Your task to perform on an android device: Where can I buy a nice beach blanket? Image 0: 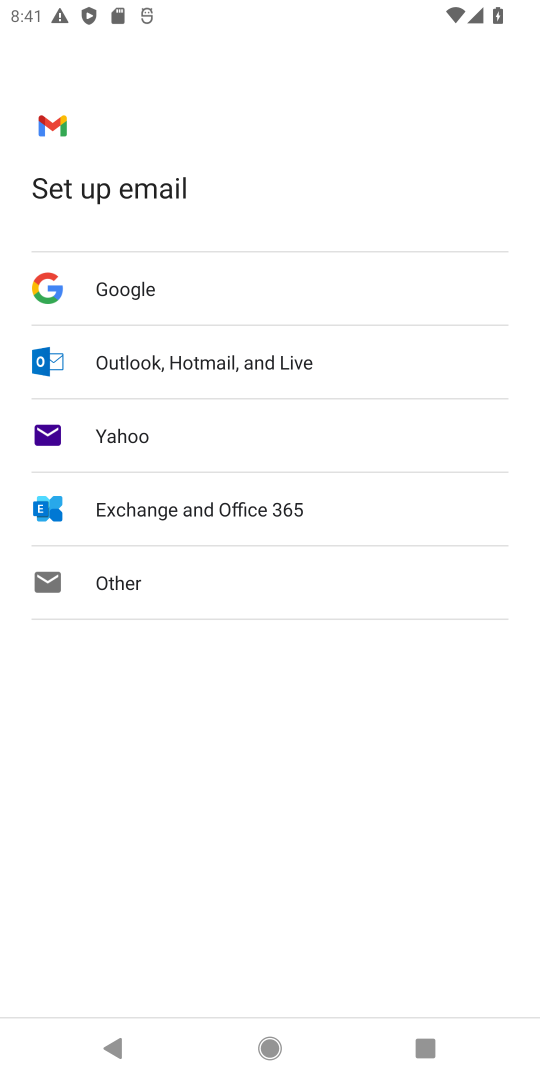
Step 0: press home button
Your task to perform on an android device: Where can I buy a nice beach blanket? Image 1: 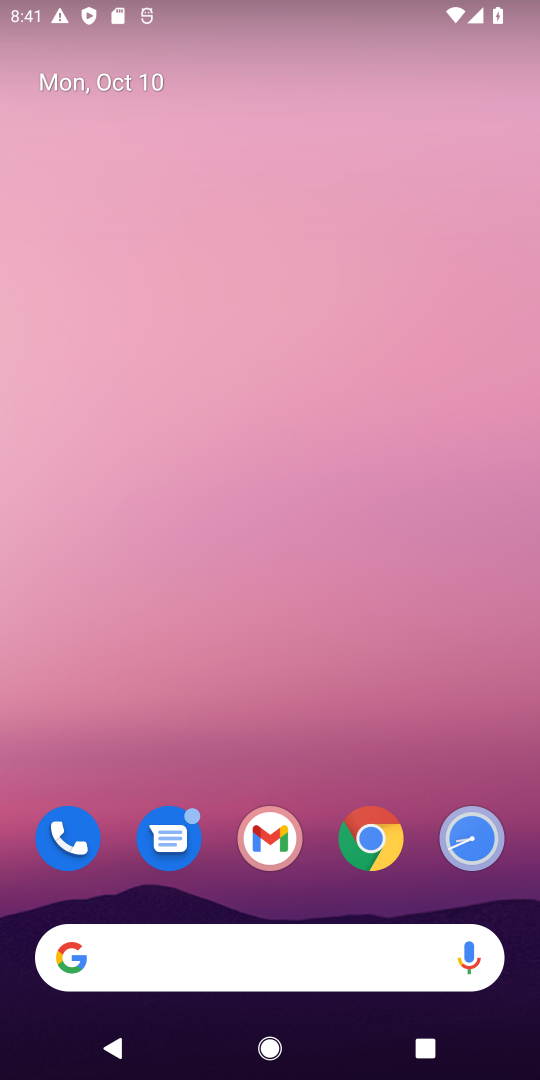
Step 1: drag from (340, 884) to (355, 46)
Your task to perform on an android device: Where can I buy a nice beach blanket? Image 2: 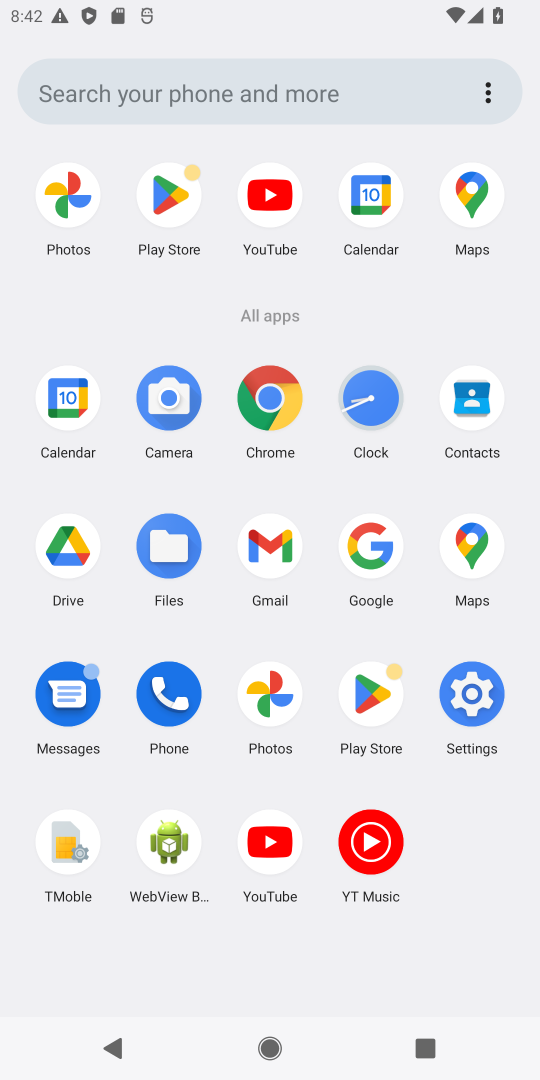
Step 2: click (270, 392)
Your task to perform on an android device: Where can I buy a nice beach blanket? Image 3: 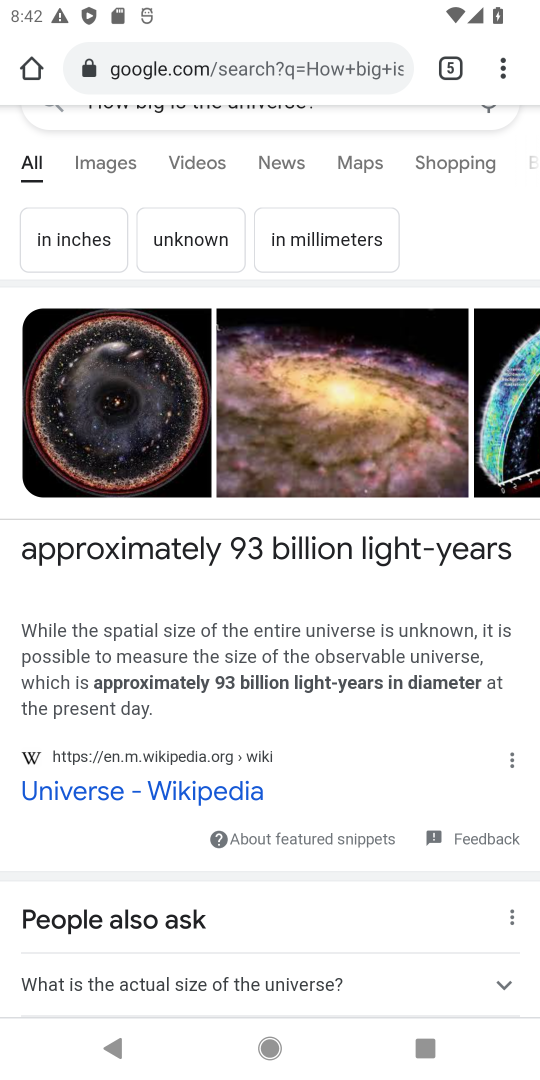
Step 3: drag from (281, 178) to (274, 694)
Your task to perform on an android device: Where can I buy a nice beach blanket? Image 4: 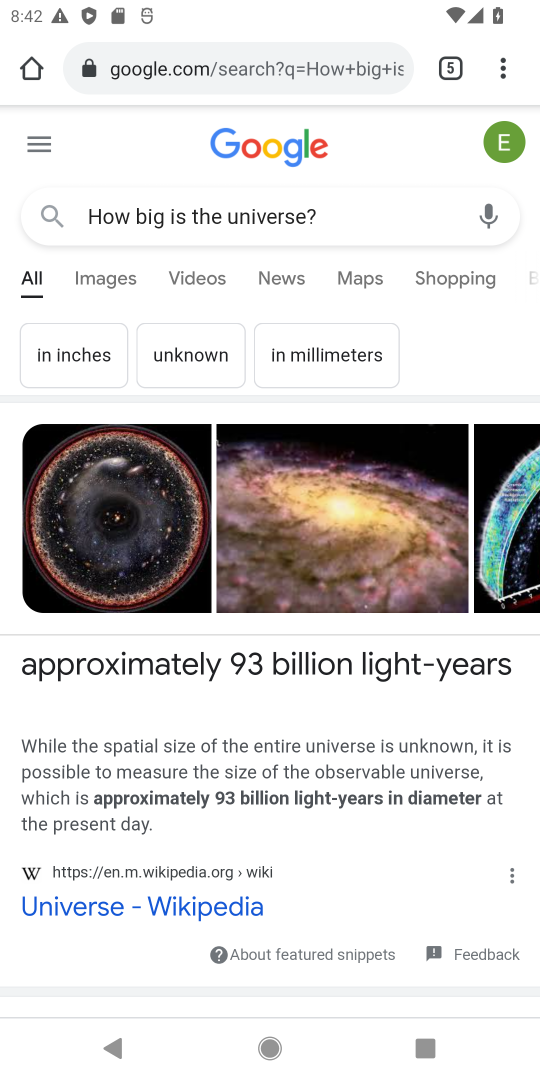
Step 4: click (351, 212)
Your task to perform on an android device: Where can I buy a nice beach blanket? Image 5: 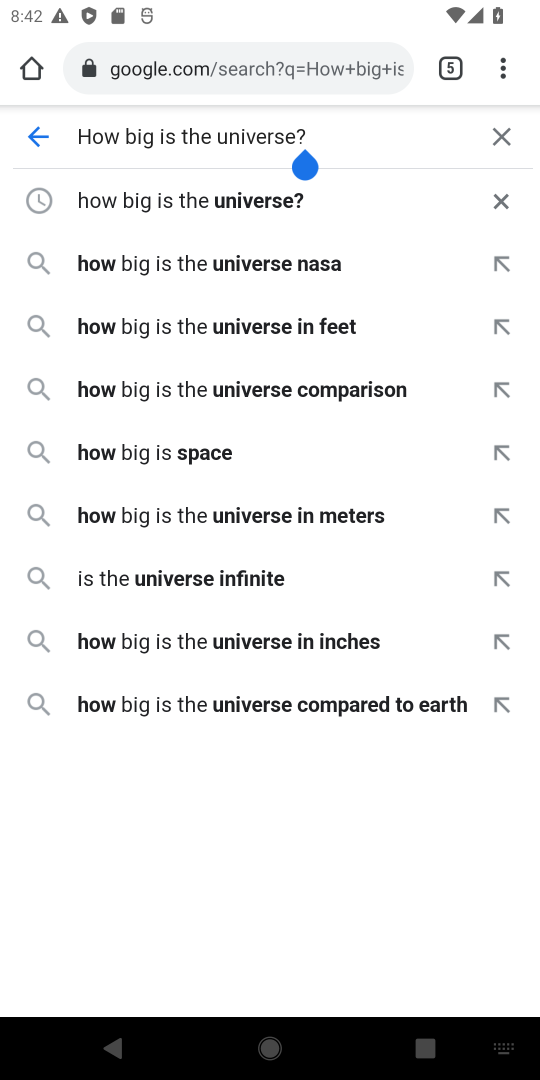
Step 5: click (510, 136)
Your task to perform on an android device: Where can I buy a nice beach blanket? Image 6: 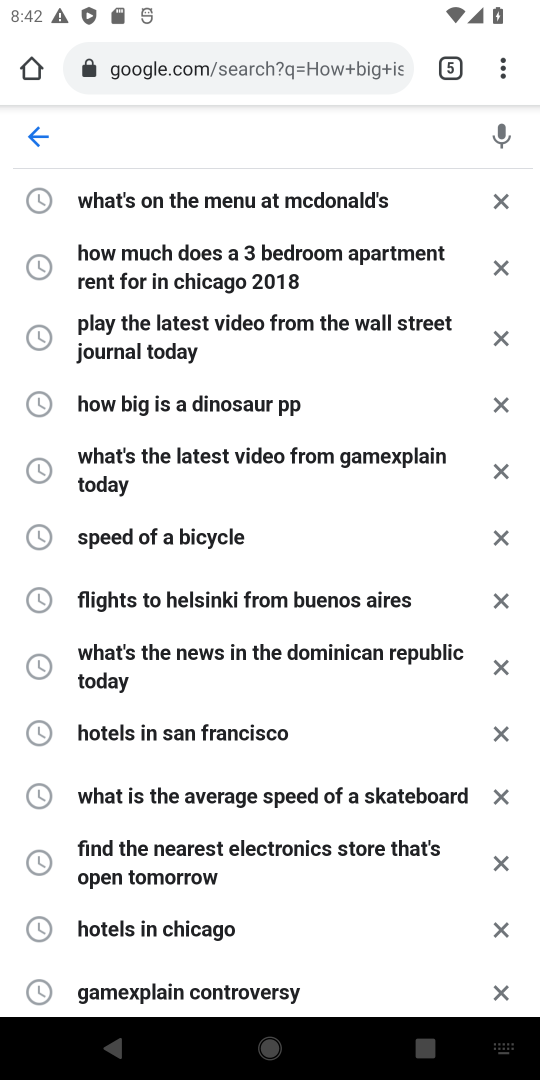
Step 6: type "Where can I buy a nice beach blanket?"
Your task to perform on an android device: Where can I buy a nice beach blanket? Image 7: 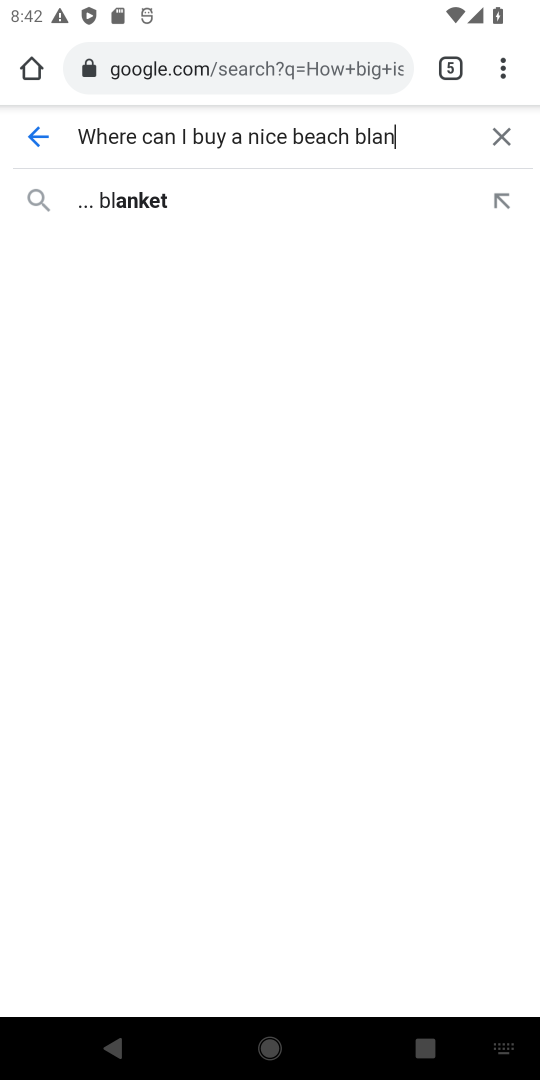
Step 7: type ""
Your task to perform on an android device: Where can I buy a nice beach blanket? Image 8: 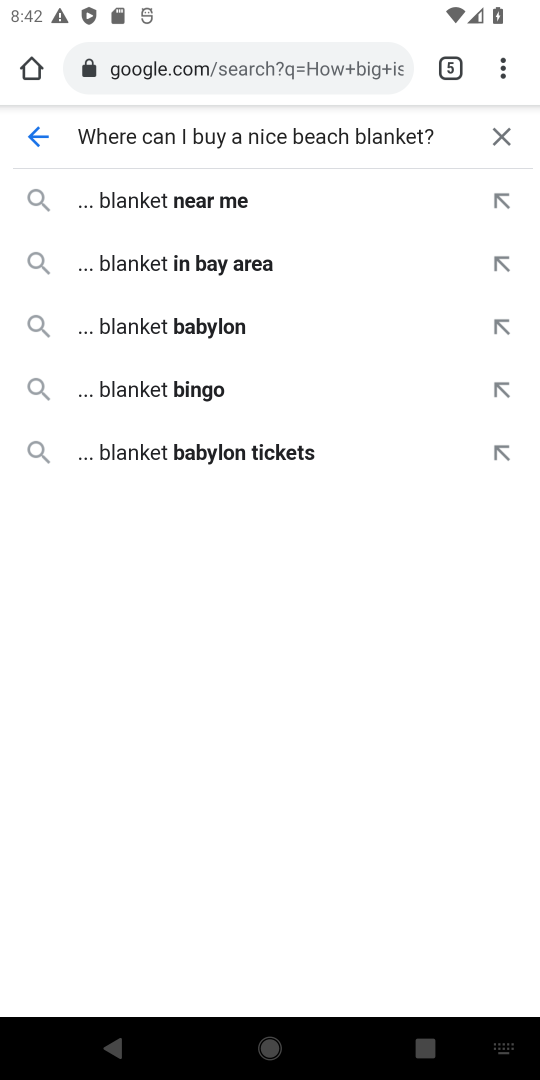
Step 8: click (230, 207)
Your task to perform on an android device: Where can I buy a nice beach blanket? Image 9: 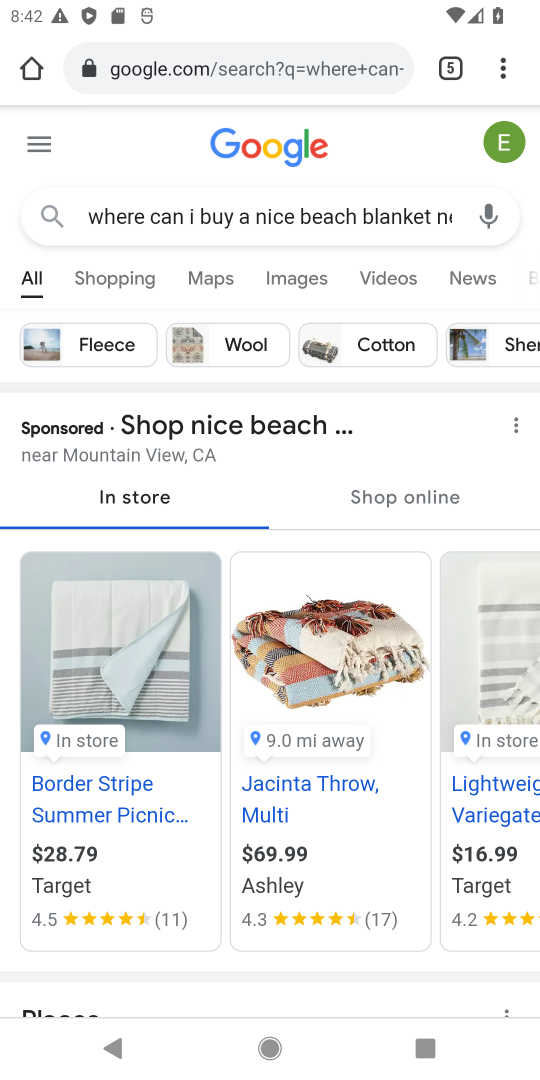
Step 9: task complete